Your task to perform on an android device: clear history in the chrome app Image 0: 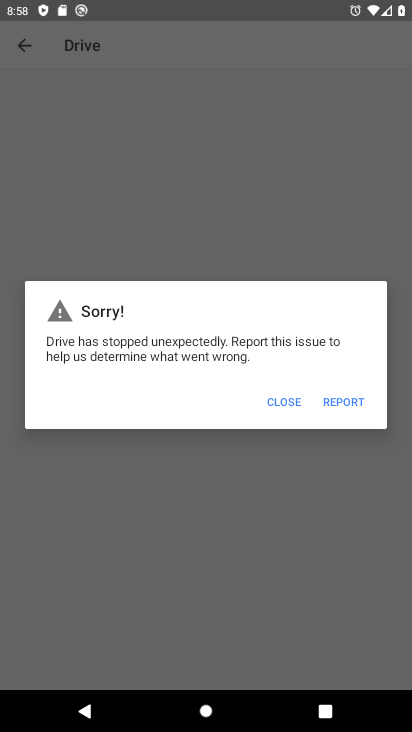
Step 0: press home button
Your task to perform on an android device: clear history in the chrome app Image 1: 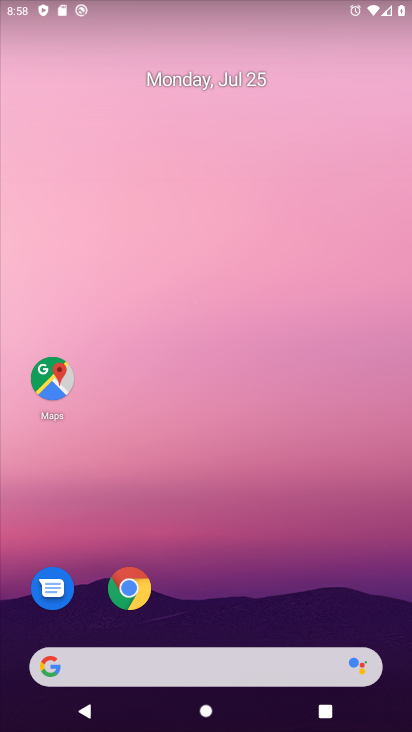
Step 1: drag from (197, 591) to (306, 22)
Your task to perform on an android device: clear history in the chrome app Image 2: 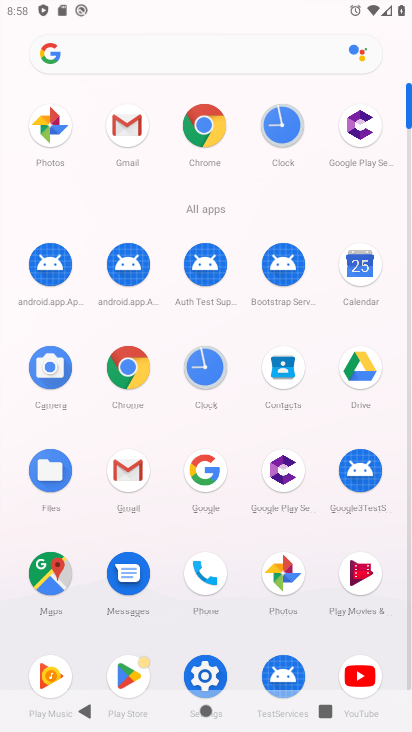
Step 2: click (136, 366)
Your task to perform on an android device: clear history in the chrome app Image 3: 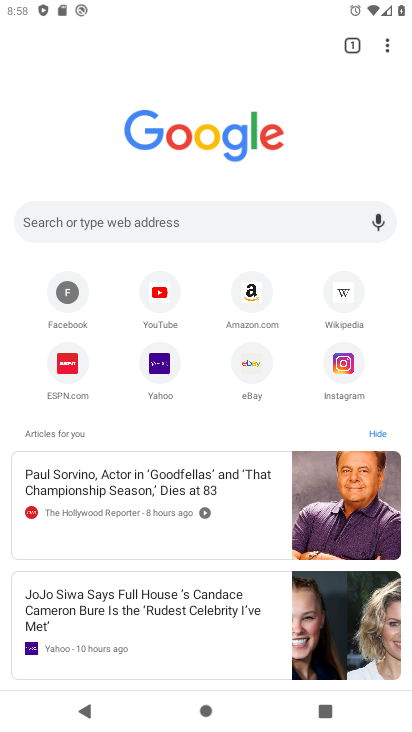
Step 3: drag from (389, 41) to (221, 260)
Your task to perform on an android device: clear history in the chrome app Image 4: 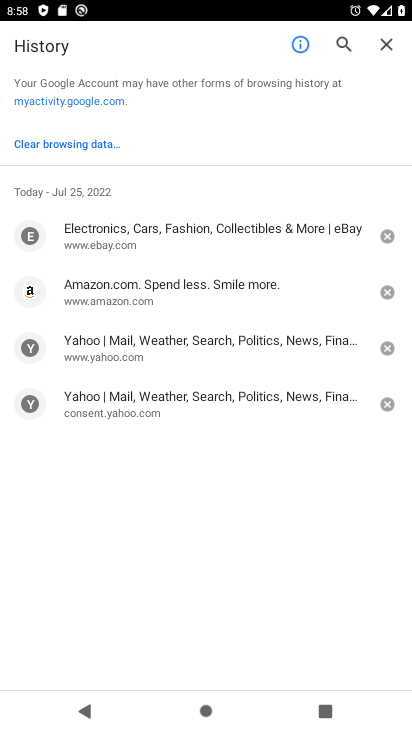
Step 4: click (28, 235)
Your task to perform on an android device: clear history in the chrome app Image 5: 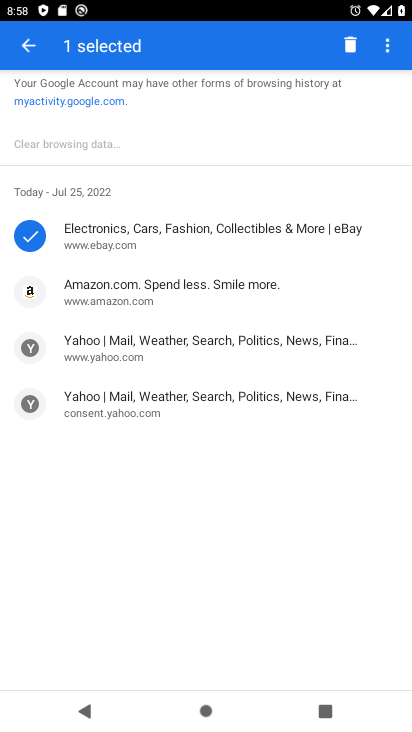
Step 5: click (29, 284)
Your task to perform on an android device: clear history in the chrome app Image 6: 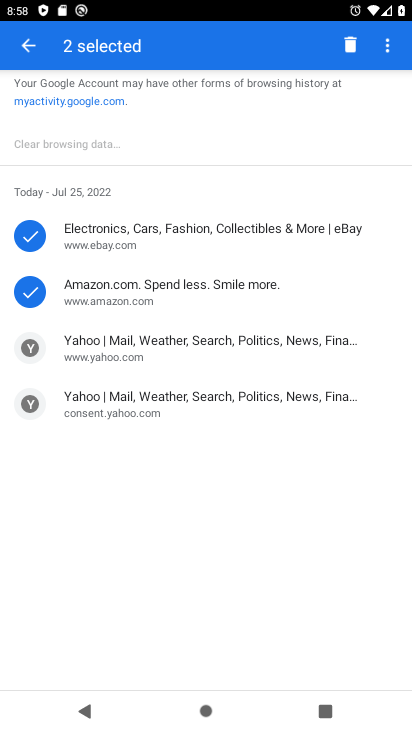
Step 6: click (33, 350)
Your task to perform on an android device: clear history in the chrome app Image 7: 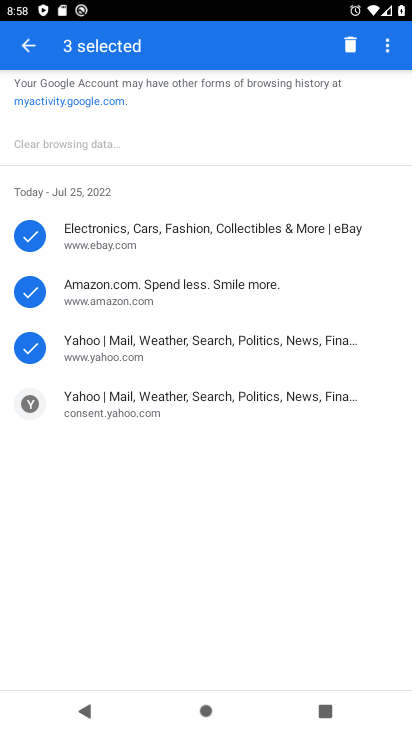
Step 7: click (25, 399)
Your task to perform on an android device: clear history in the chrome app Image 8: 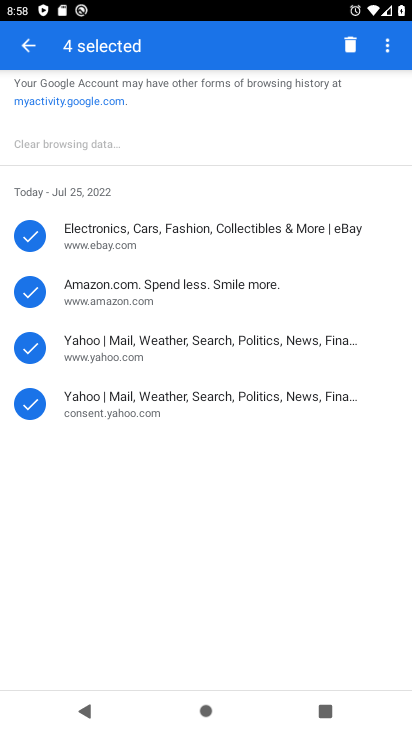
Step 8: click (355, 51)
Your task to perform on an android device: clear history in the chrome app Image 9: 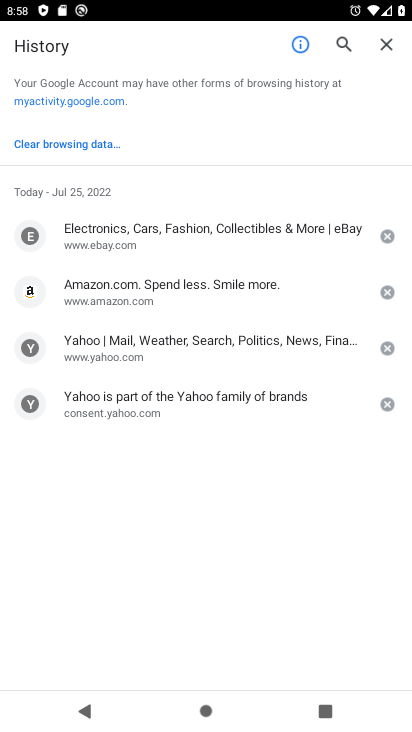
Step 9: click (25, 233)
Your task to perform on an android device: clear history in the chrome app Image 10: 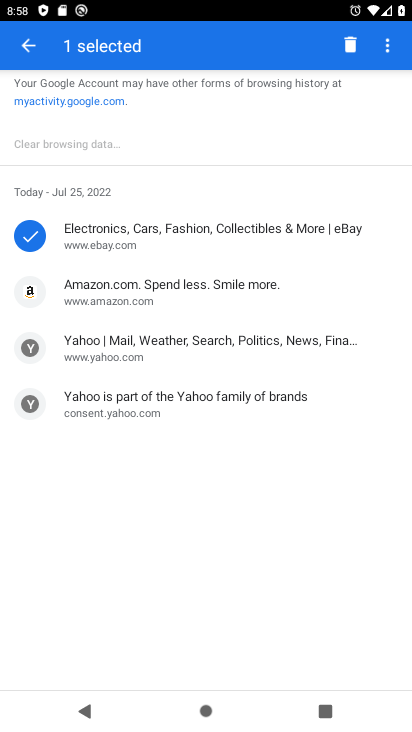
Step 10: click (30, 289)
Your task to perform on an android device: clear history in the chrome app Image 11: 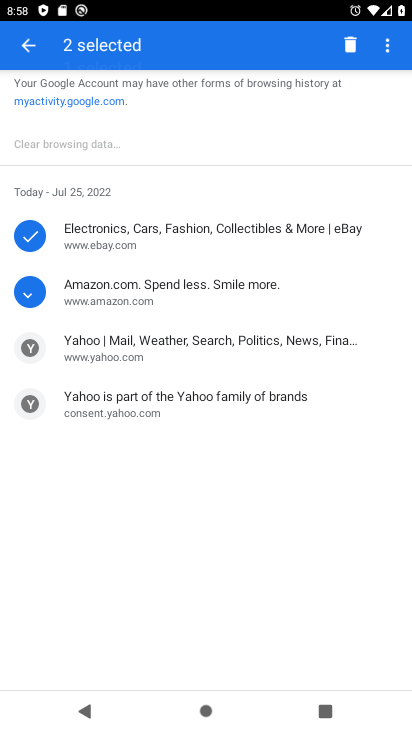
Step 11: click (27, 337)
Your task to perform on an android device: clear history in the chrome app Image 12: 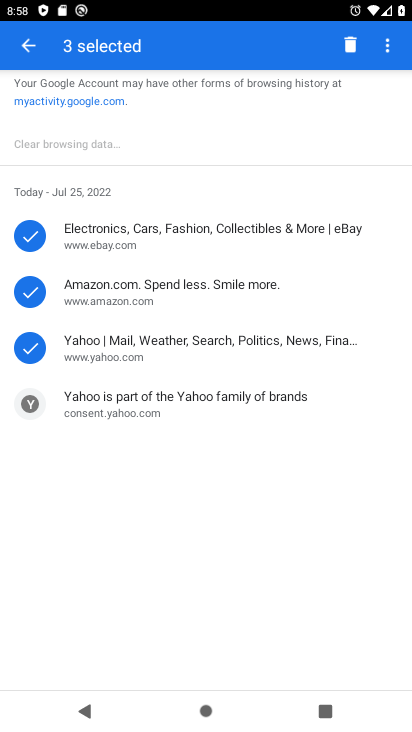
Step 12: click (33, 403)
Your task to perform on an android device: clear history in the chrome app Image 13: 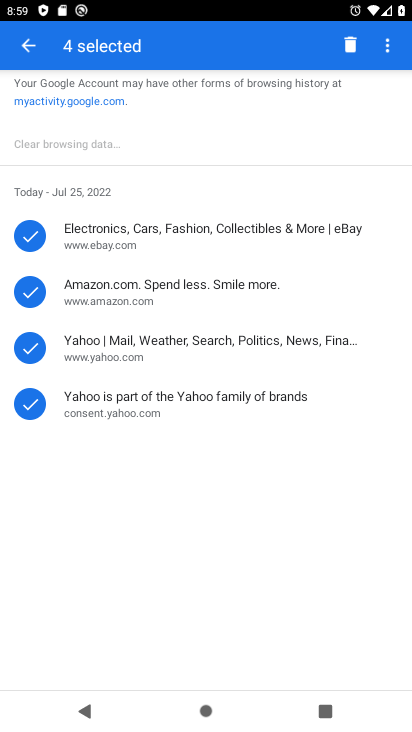
Step 13: click (349, 39)
Your task to perform on an android device: clear history in the chrome app Image 14: 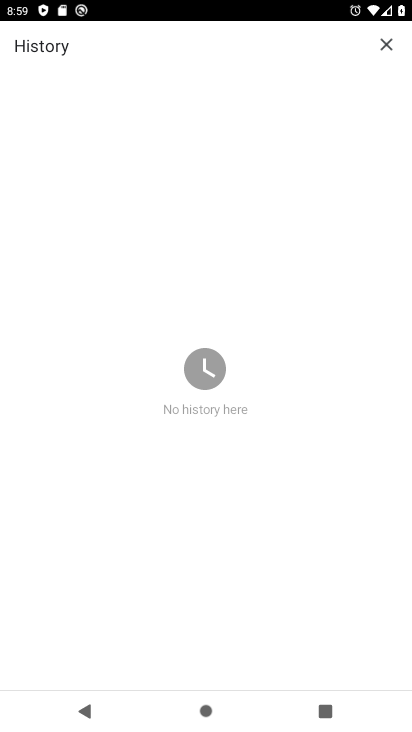
Step 14: task complete